Your task to perform on an android device: clear history in the chrome app Image 0: 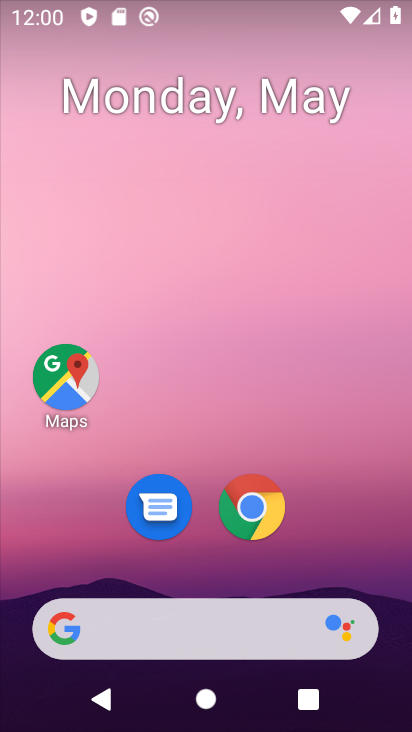
Step 0: click (253, 513)
Your task to perform on an android device: clear history in the chrome app Image 1: 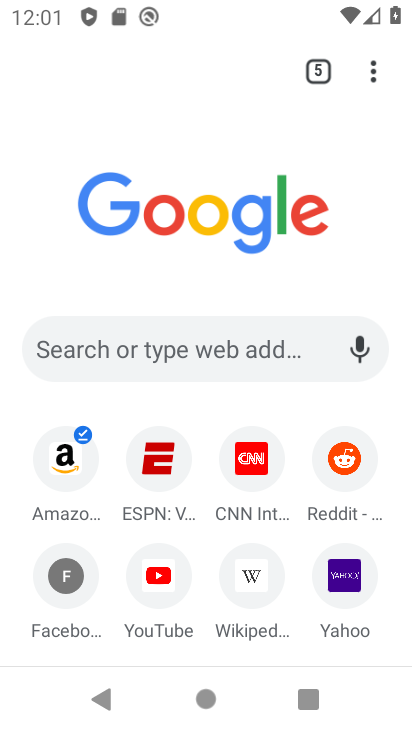
Step 1: click (371, 84)
Your task to perform on an android device: clear history in the chrome app Image 2: 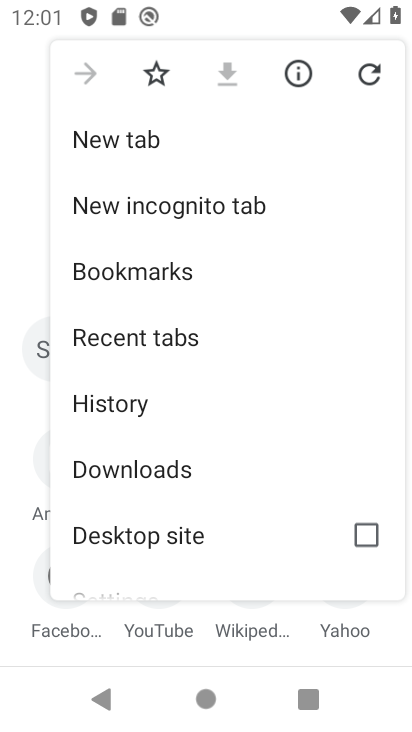
Step 2: click (109, 400)
Your task to perform on an android device: clear history in the chrome app Image 3: 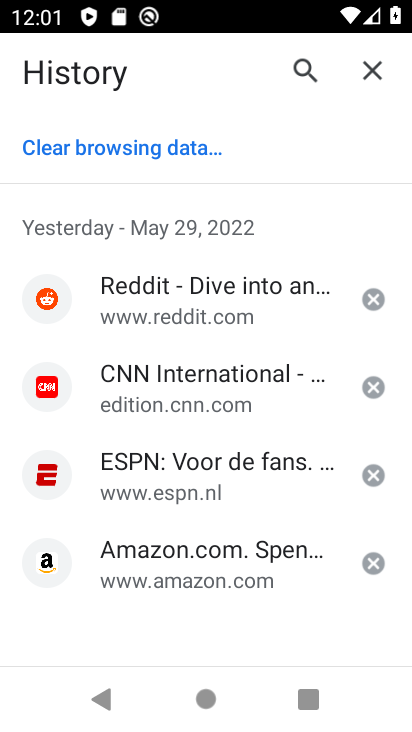
Step 3: click (140, 150)
Your task to perform on an android device: clear history in the chrome app Image 4: 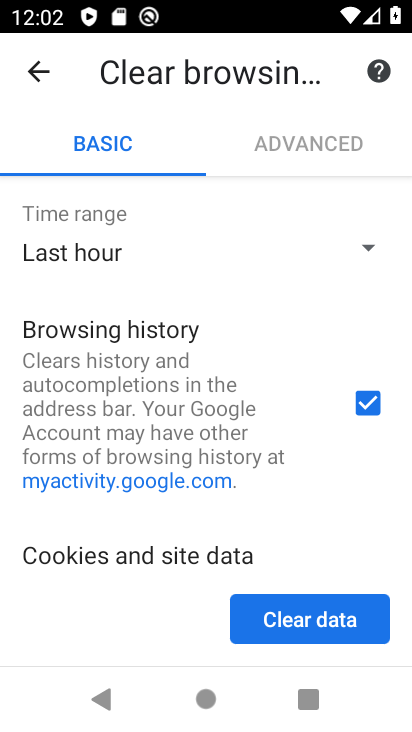
Step 4: drag from (260, 541) to (275, 264)
Your task to perform on an android device: clear history in the chrome app Image 5: 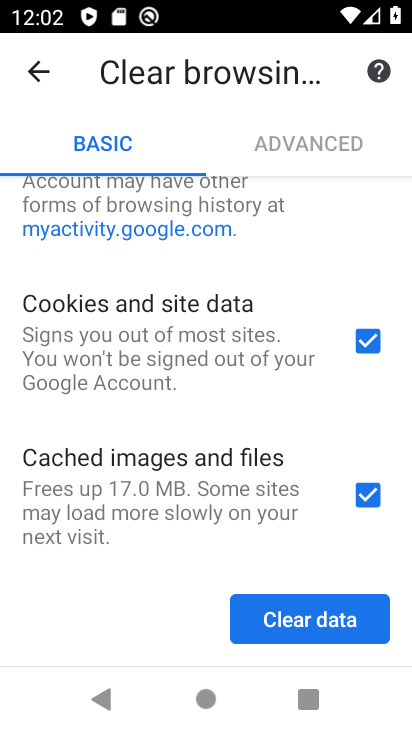
Step 5: click (374, 495)
Your task to perform on an android device: clear history in the chrome app Image 6: 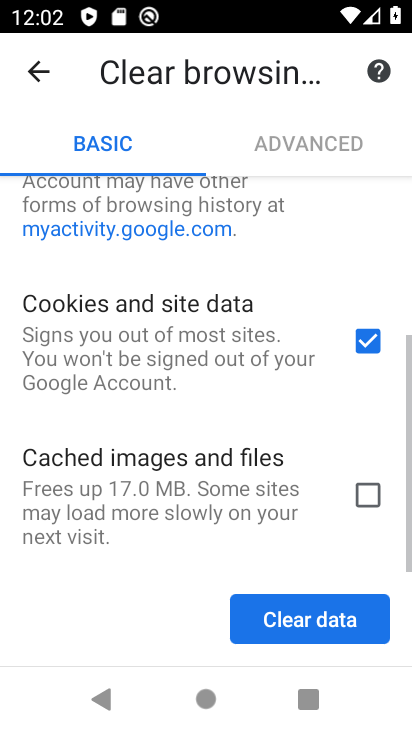
Step 6: click (362, 336)
Your task to perform on an android device: clear history in the chrome app Image 7: 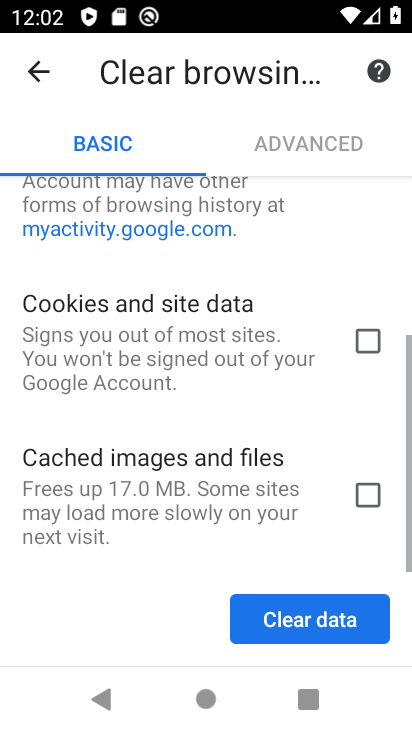
Step 7: drag from (254, 266) to (252, 421)
Your task to perform on an android device: clear history in the chrome app Image 8: 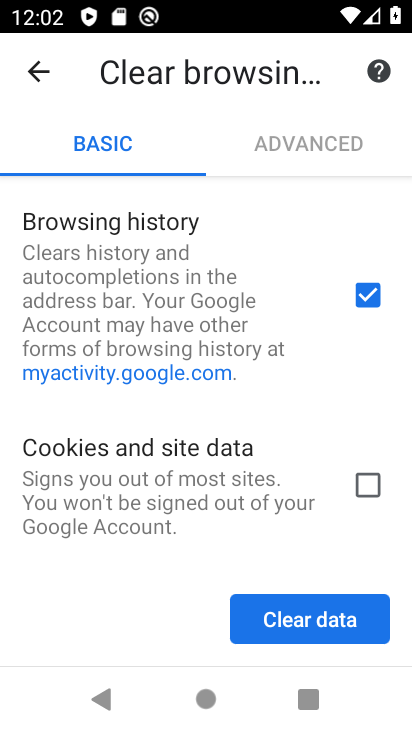
Step 8: click (322, 629)
Your task to perform on an android device: clear history in the chrome app Image 9: 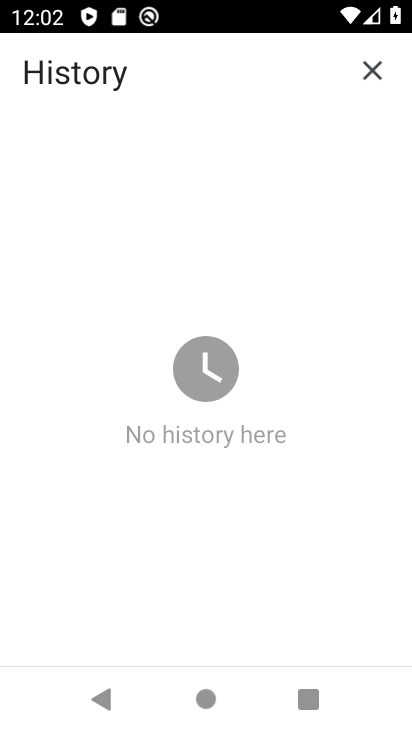
Step 9: task complete